Your task to perform on an android device: Open the stopwatch Image 0: 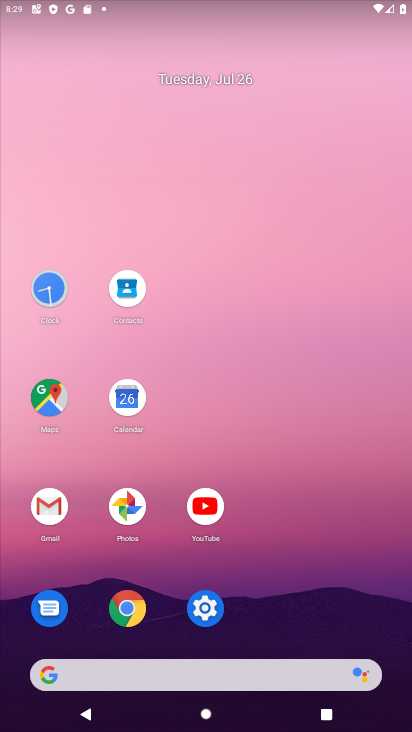
Step 0: click (50, 281)
Your task to perform on an android device: Open the stopwatch Image 1: 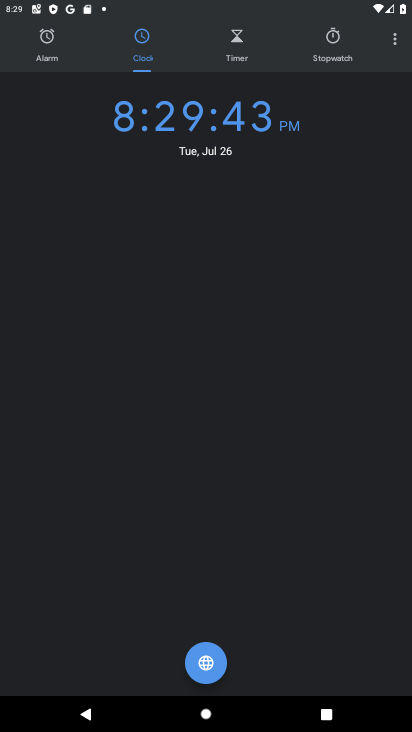
Step 1: click (331, 45)
Your task to perform on an android device: Open the stopwatch Image 2: 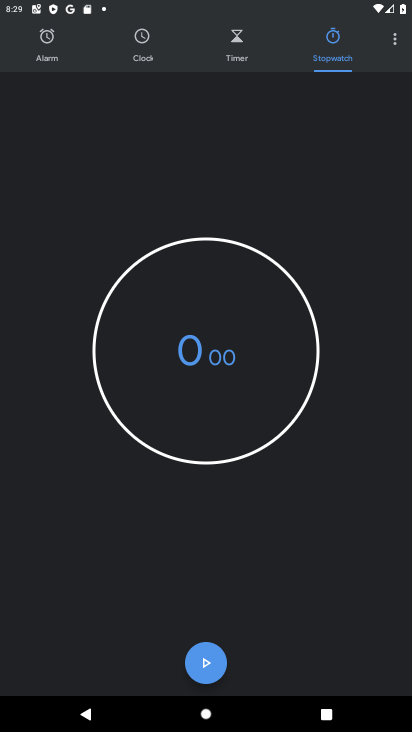
Step 2: task complete